Your task to perform on an android device: Open Android settings Image 0: 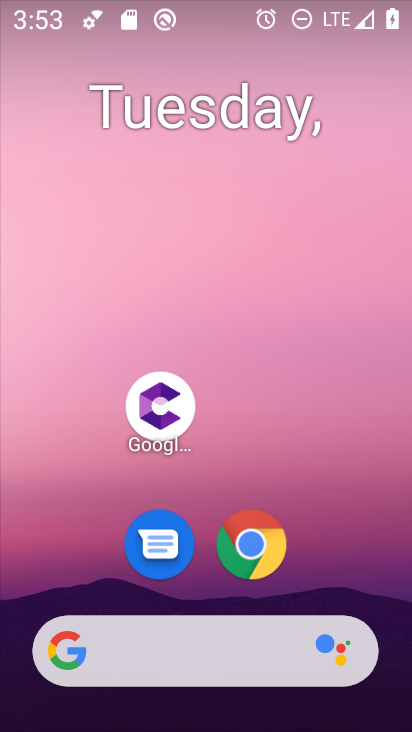
Step 0: drag from (373, 572) to (378, 279)
Your task to perform on an android device: Open Android settings Image 1: 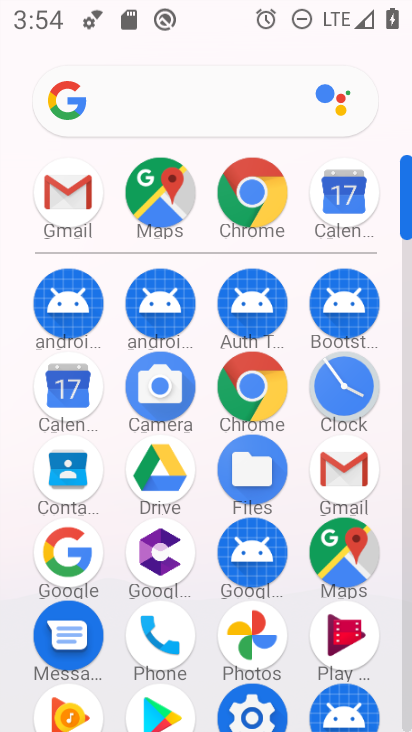
Step 1: drag from (203, 670) to (203, 539)
Your task to perform on an android device: Open Android settings Image 2: 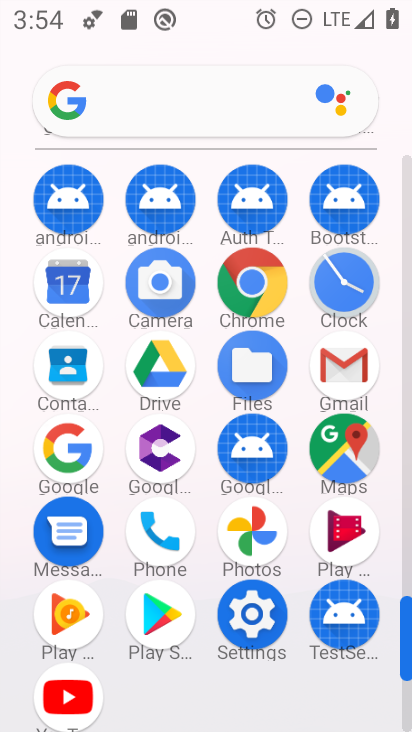
Step 2: click (259, 633)
Your task to perform on an android device: Open Android settings Image 3: 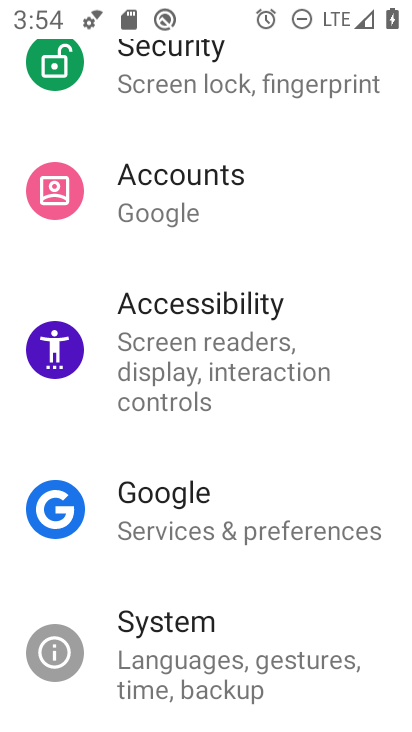
Step 3: drag from (372, 265) to (373, 336)
Your task to perform on an android device: Open Android settings Image 4: 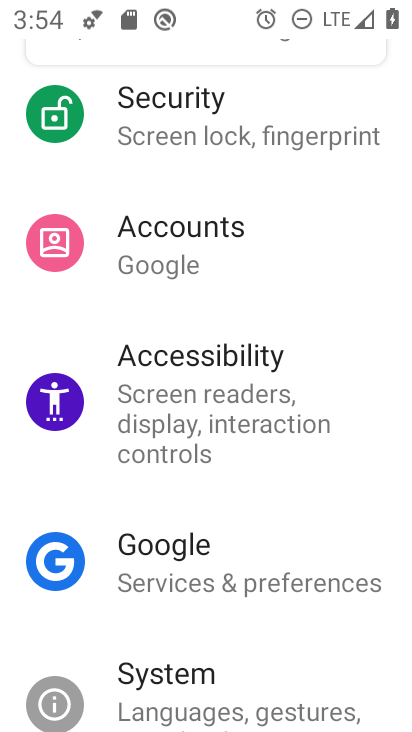
Step 4: drag from (368, 239) to (356, 365)
Your task to perform on an android device: Open Android settings Image 5: 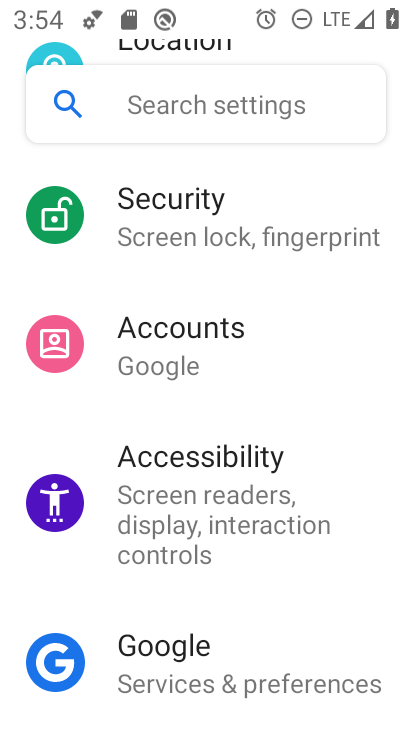
Step 5: drag from (368, 169) to (366, 305)
Your task to perform on an android device: Open Android settings Image 6: 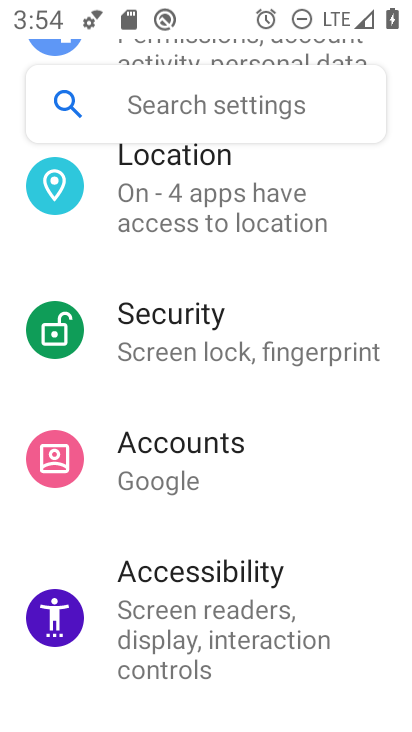
Step 6: drag from (369, 183) to (345, 328)
Your task to perform on an android device: Open Android settings Image 7: 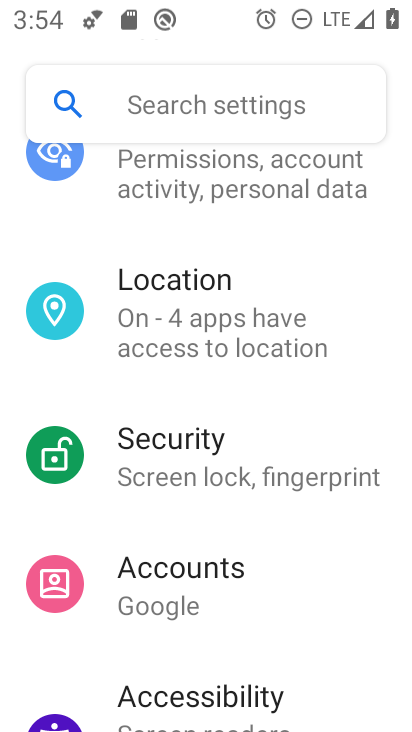
Step 7: drag from (375, 170) to (355, 324)
Your task to perform on an android device: Open Android settings Image 8: 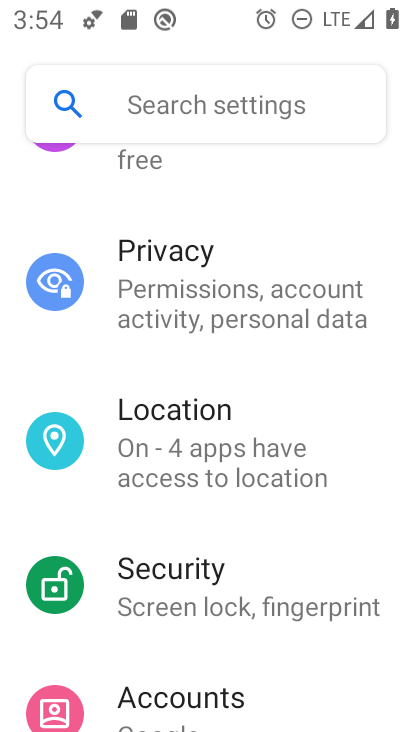
Step 8: drag from (369, 178) to (353, 309)
Your task to perform on an android device: Open Android settings Image 9: 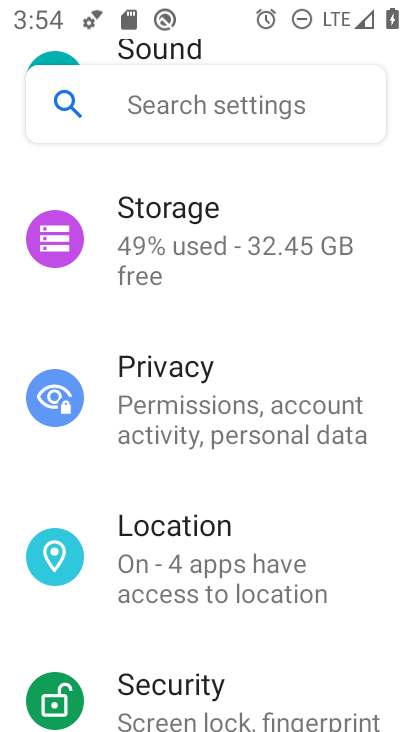
Step 9: drag from (338, 201) to (326, 301)
Your task to perform on an android device: Open Android settings Image 10: 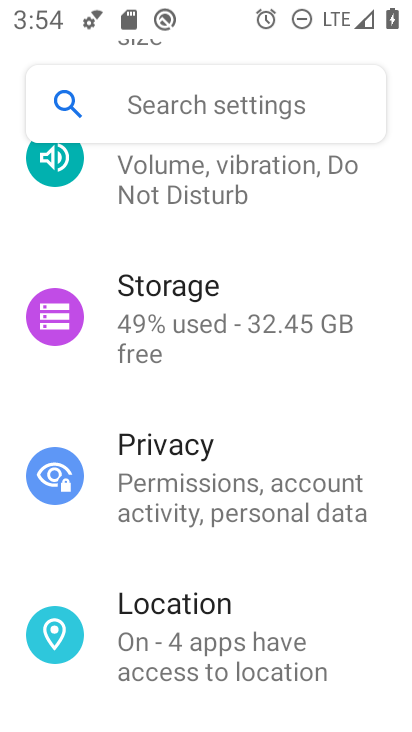
Step 10: drag from (303, 233) to (297, 300)
Your task to perform on an android device: Open Android settings Image 11: 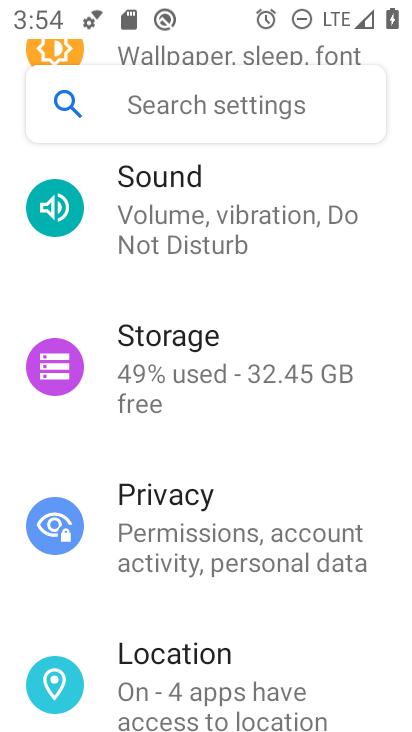
Step 11: drag from (311, 162) to (299, 319)
Your task to perform on an android device: Open Android settings Image 12: 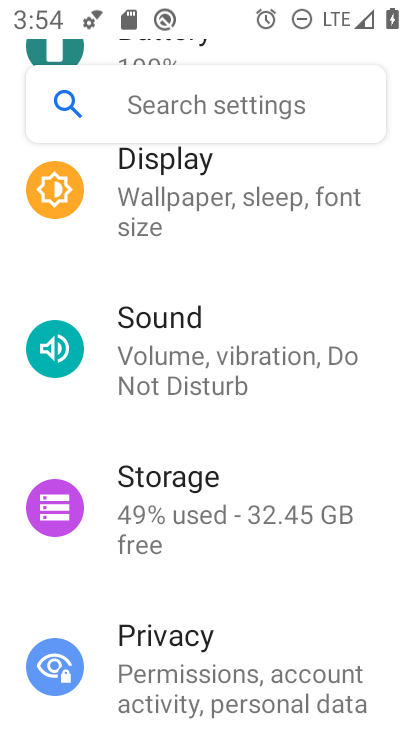
Step 12: drag from (325, 159) to (316, 305)
Your task to perform on an android device: Open Android settings Image 13: 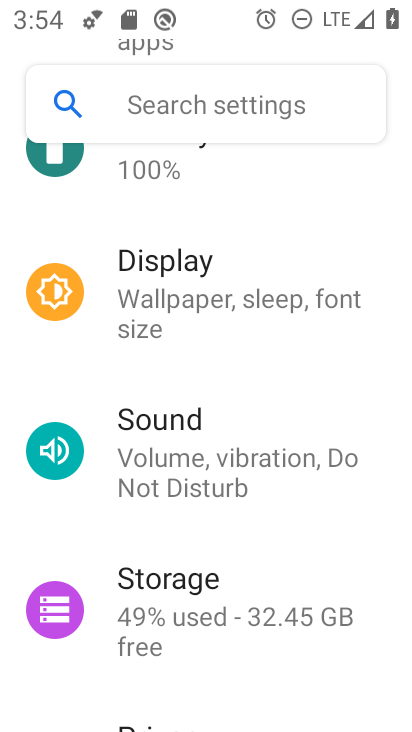
Step 13: drag from (296, 202) to (279, 327)
Your task to perform on an android device: Open Android settings Image 14: 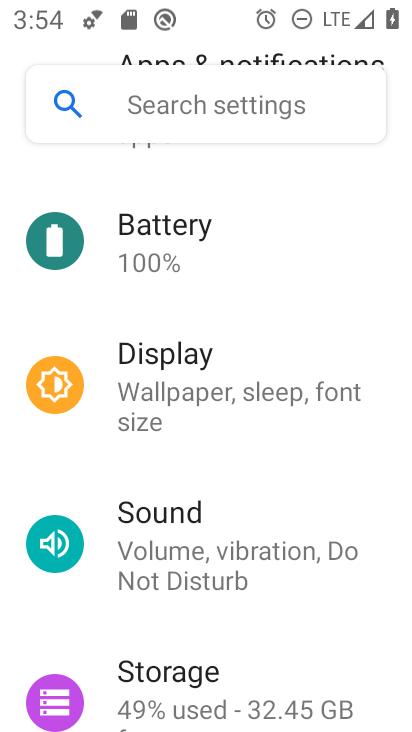
Step 14: drag from (290, 434) to (315, 301)
Your task to perform on an android device: Open Android settings Image 15: 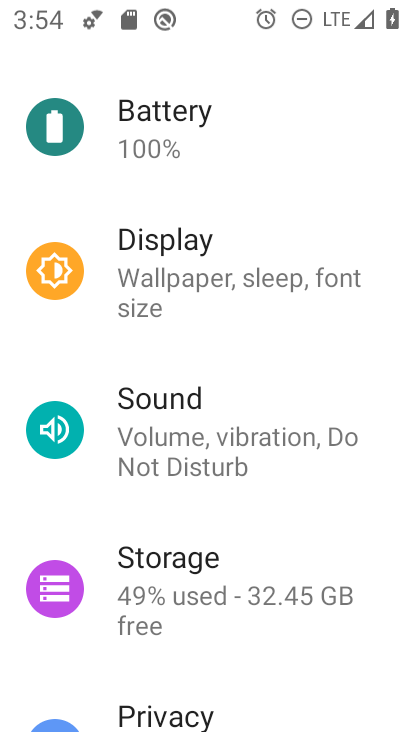
Step 15: drag from (289, 519) to (297, 399)
Your task to perform on an android device: Open Android settings Image 16: 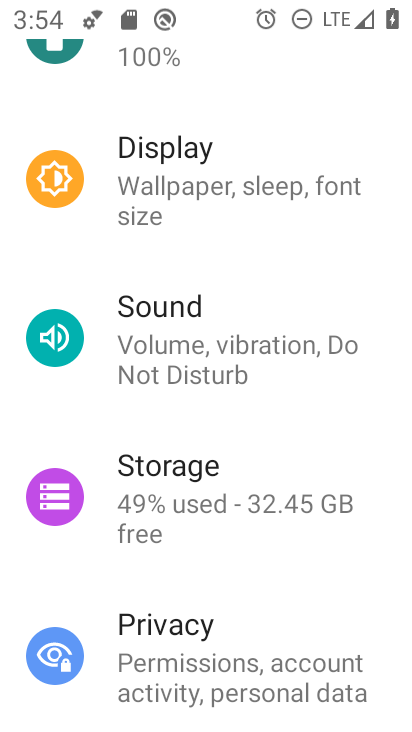
Step 16: drag from (272, 546) to (272, 456)
Your task to perform on an android device: Open Android settings Image 17: 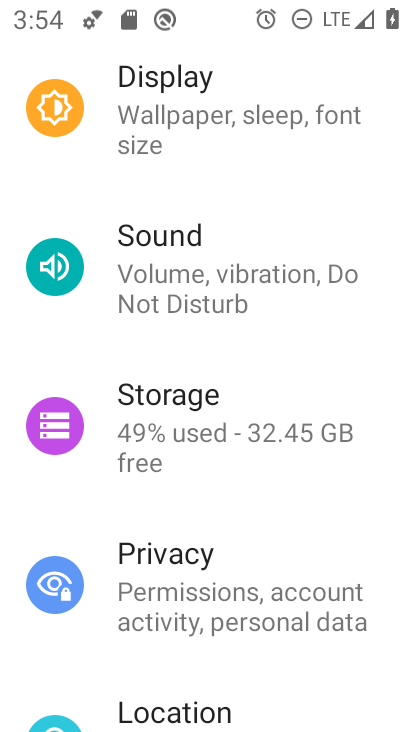
Step 17: drag from (268, 557) to (282, 488)
Your task to perform on an android device: Open Android settings Image 18: 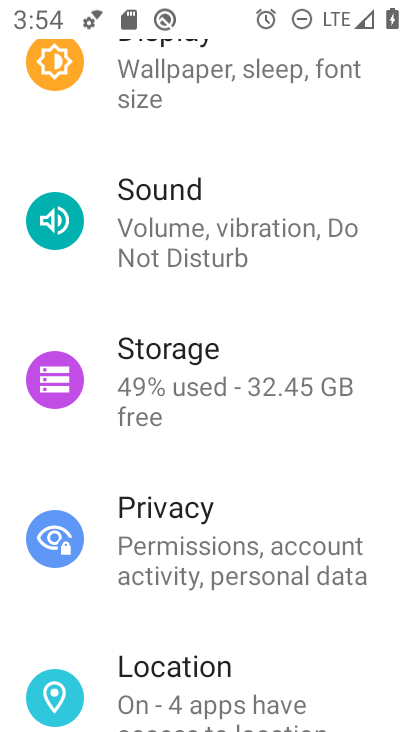
Step 18: drag from (288, 571) to (294, 493)
Your task to perform on an android device: Open Android settings Image 19: 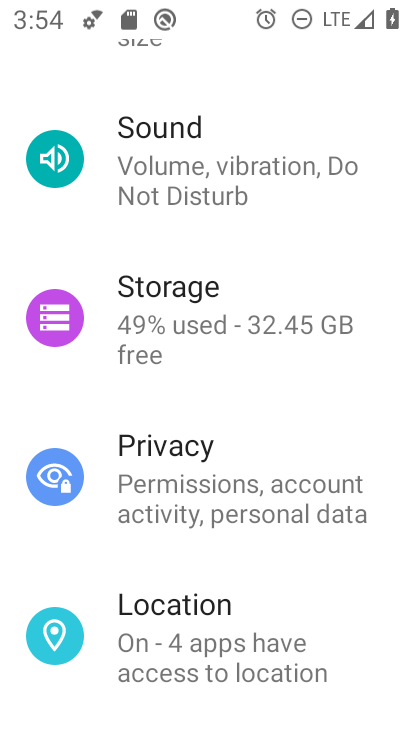
Step 19: click (309, 564)
Your task to perform on an android device: Open Android settings Image 20: 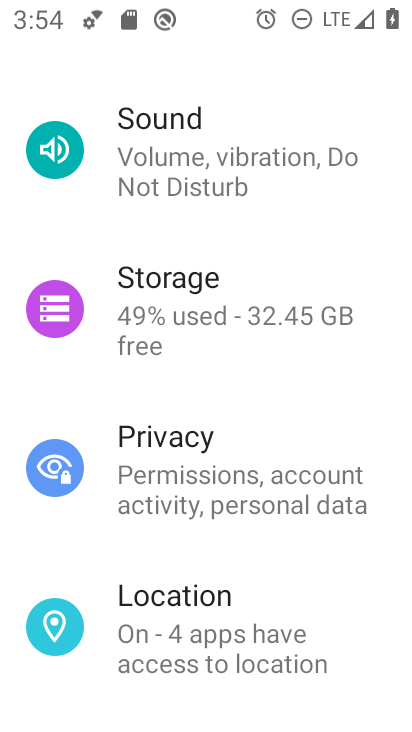
Step 20: drag from (302, 560) to (301, 522)
Your task to perform on an android device: Open Android settings Image 21: 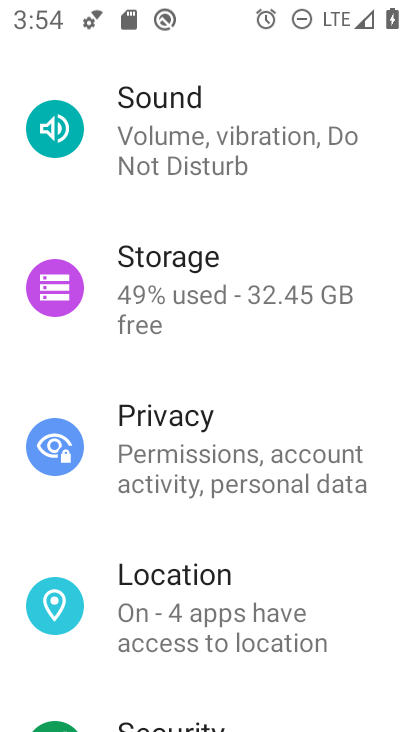
Step 21: drag from (300, 559) to (295, 448)
Your task to perform on an android device: Open Android settings Image 22: 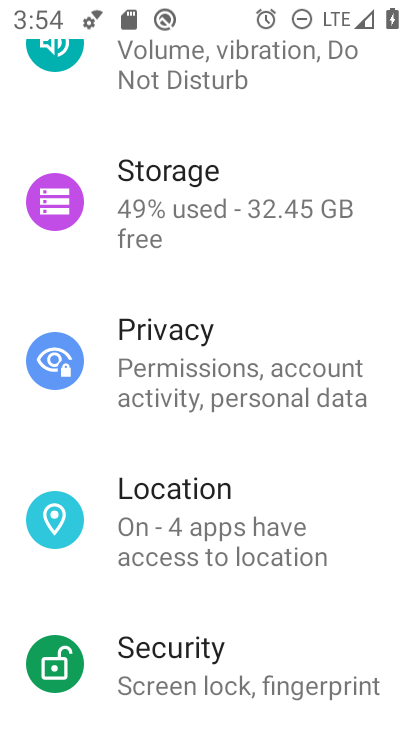
Step 22: drag from (274, 612) to (296, 494)
Your task to perform on an android device: Open Android settings Image 23: 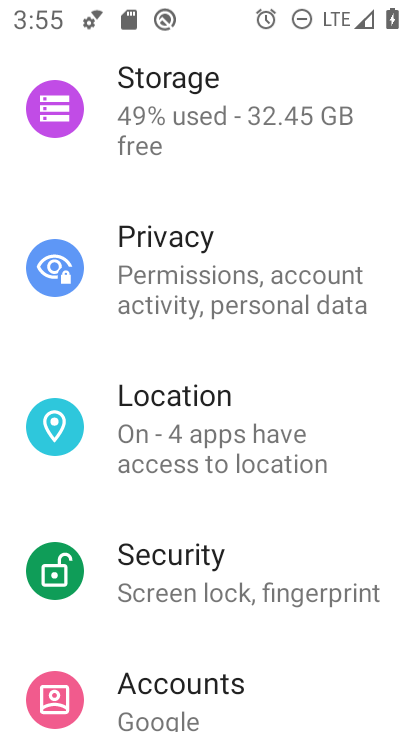
Step 23: drag from (288, 620) to (314, 510)
Your task to perform on an android device: Open Android settings Image 24: 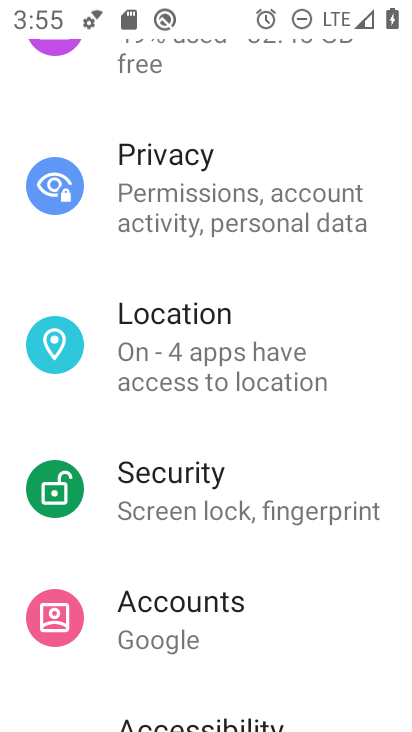
Step 24: drag from (293, 602) to (315, 531)
Your task to perform on an android device: Open Android settings Image 25: 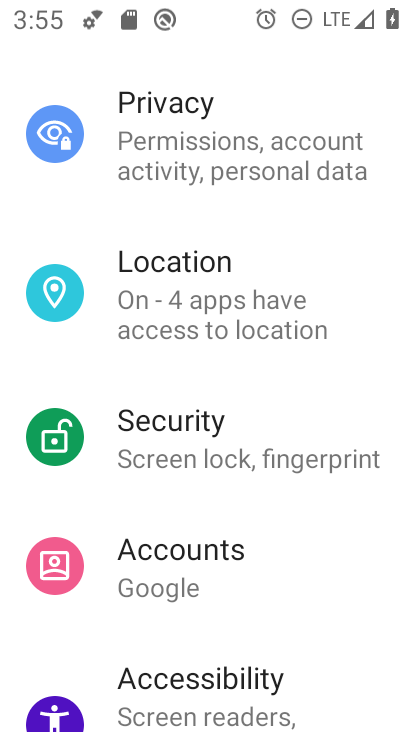
Step 25: drag from (320, 592) to (336, 456)
Your task to perform on an android device: Open Android settings Image 26: 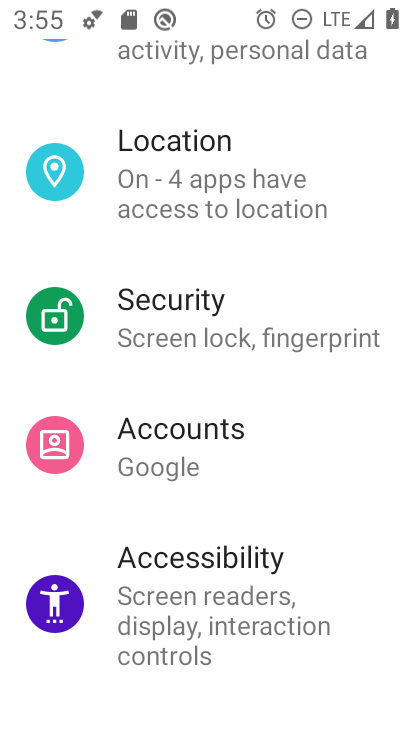
Step 26: drag from (335, 679) to (326, 542)
Your task to perform on an android device: Open Android settings Image 27: 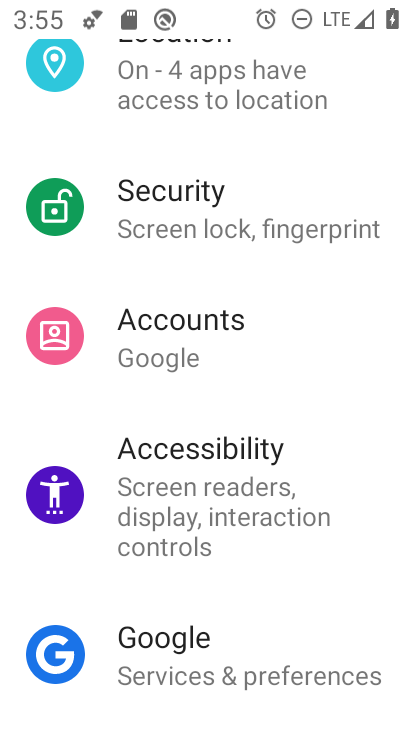
Step 27: drag from (350, 647) to (378, 468)
Your task to perform on an android device: Open Android settings Image 28: 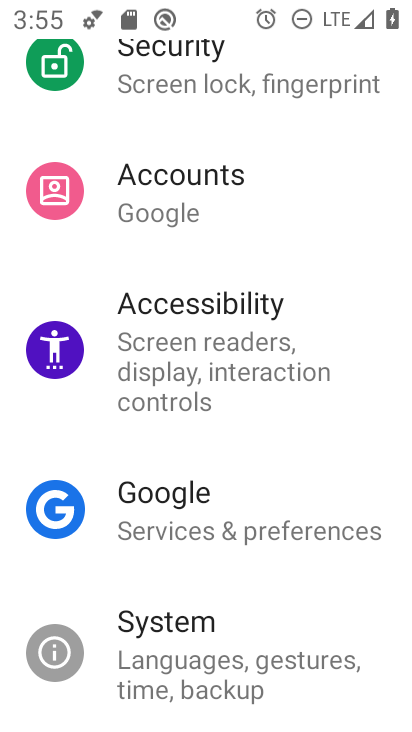
Step 28: drag from (316, 618) to (326, 469)
Your task to perform on an android device: Open Android settings Image 29: 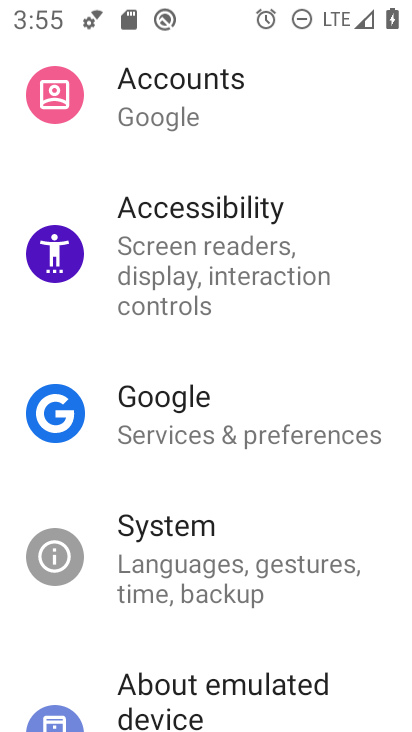
Step 29: click (211, 559)
Your task to perform on an android device: Open Android settings Image 30: 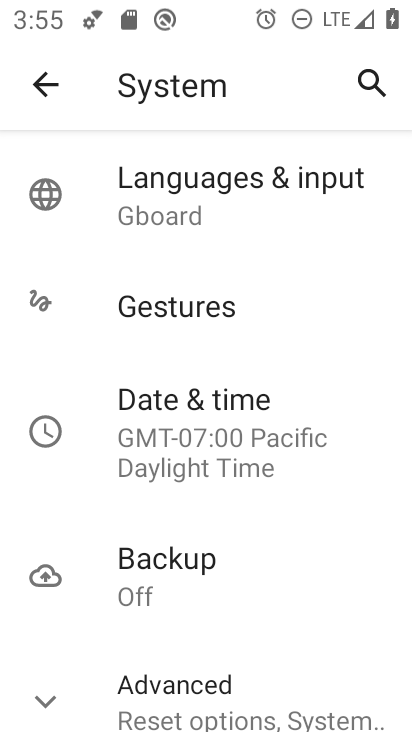
Step 30: drag from (295, 639) to (319, 477)
Your task to perform on an android device: Open Android settings Image 31: 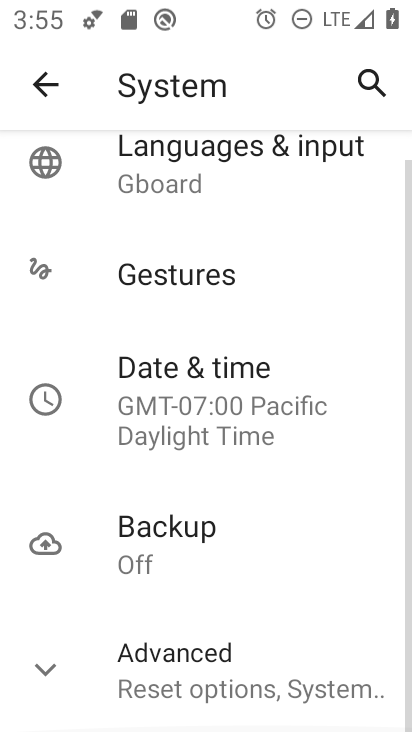
Step 31: click (223, 678)
Your task to perform on an android device: Open Android settings Image 32: 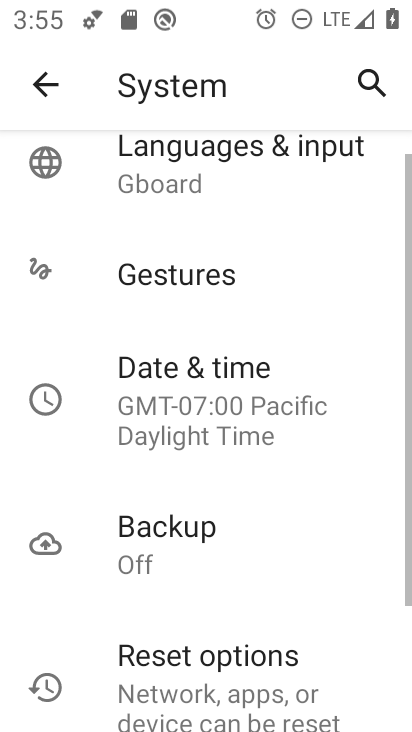
Step 32: drag from (337, 659) to (353, 480)
Your task to perform on an android device: Open Android settings Image 33: 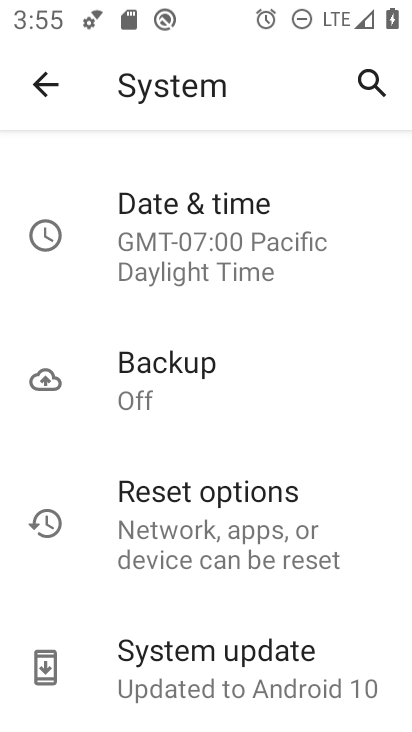
Step 33: click (265, 678)
Your task to perform on an android device: Open Android settings Image 34: 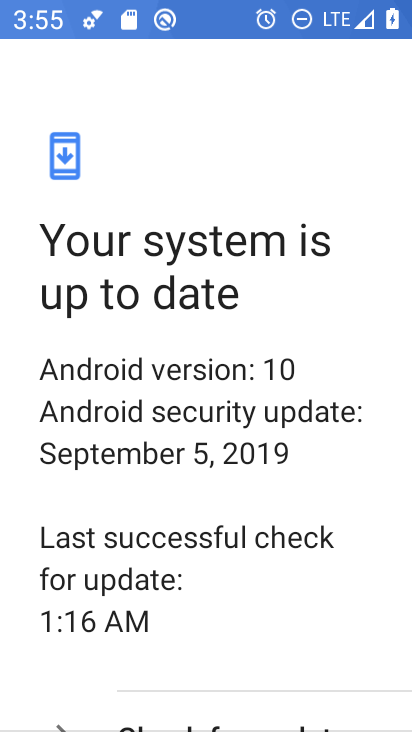
Step 34: task complete